Your task to perform on an android device: When is my next appointment? Image 0: 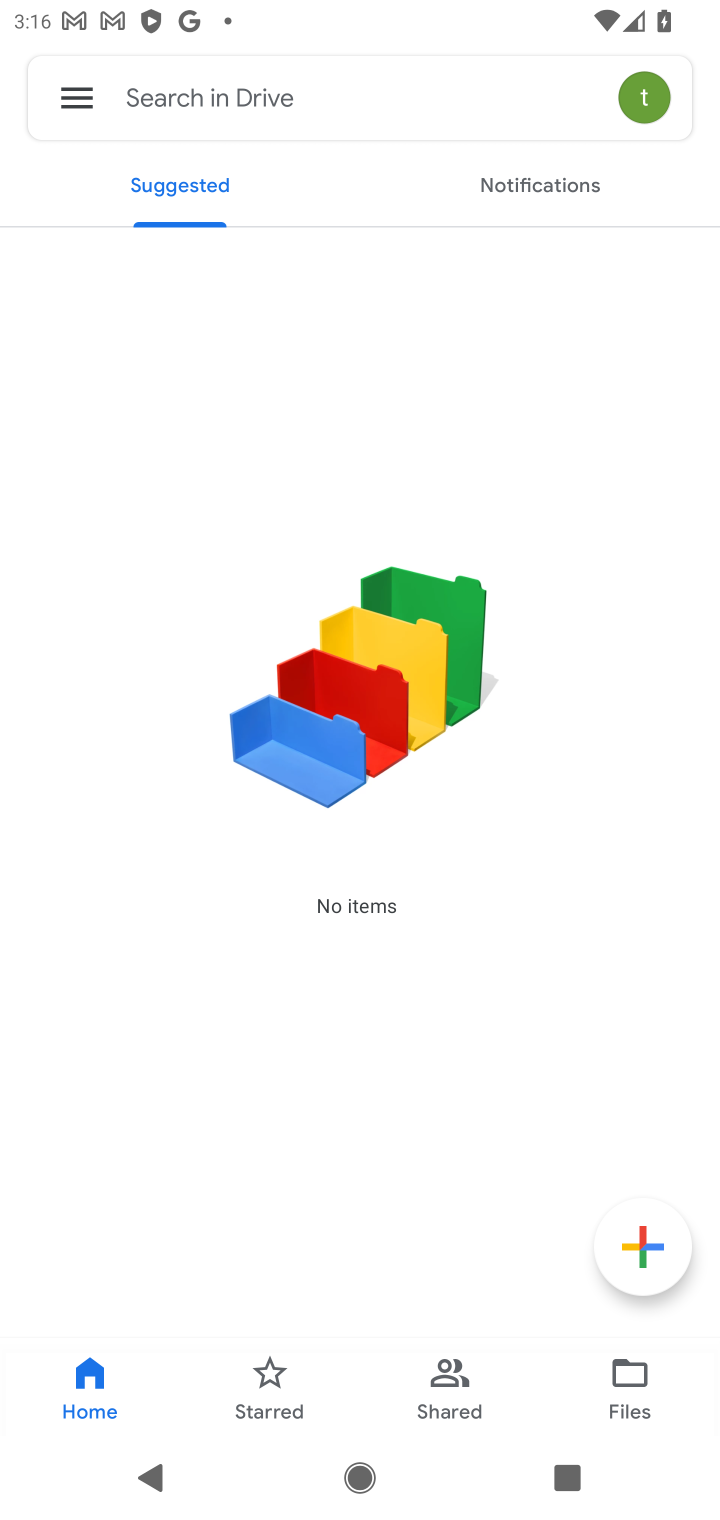
Step 0: press home button
Your task to perform on an android device: When is my next appointment? Image 1: 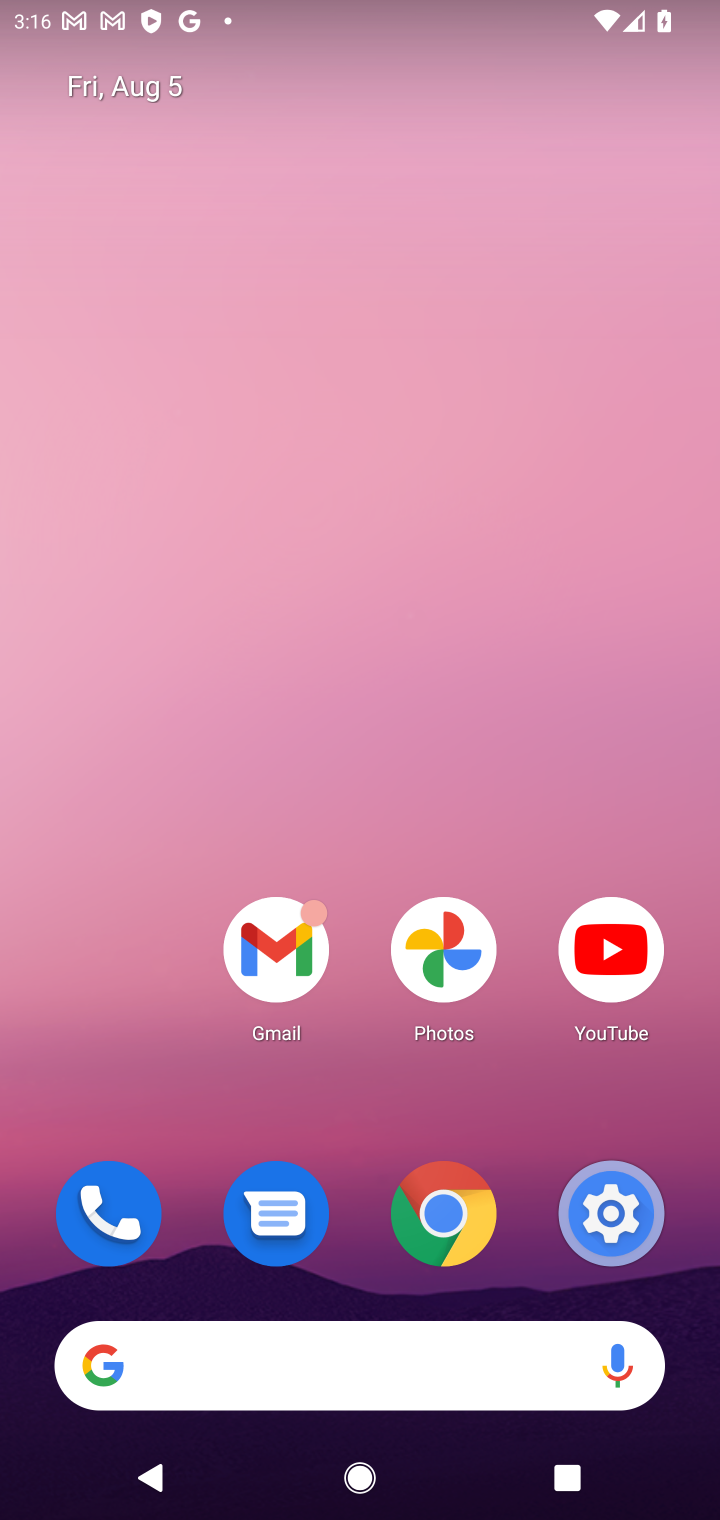
Step 1: click (623, 1172)
Your task to perform on an android device: When is my next appointment? Image 2: 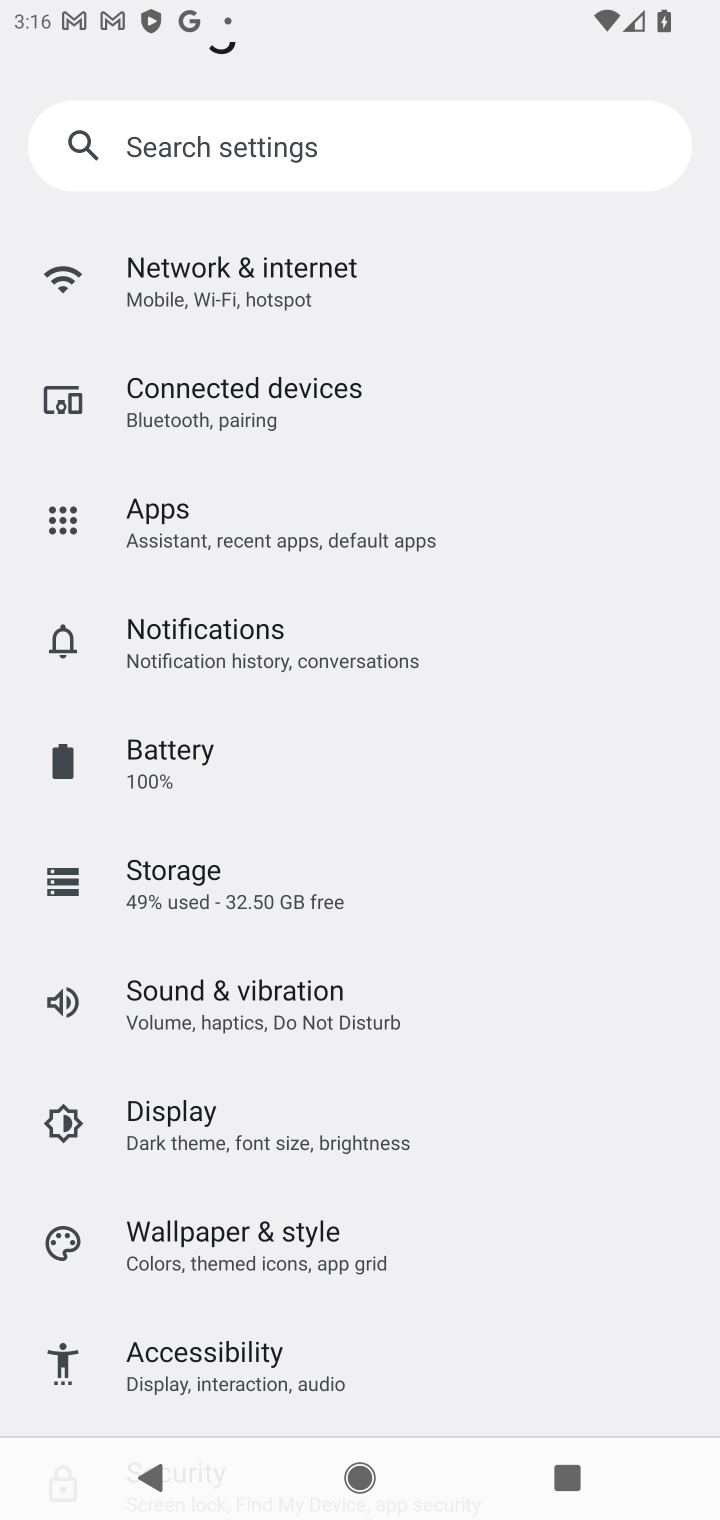
Step 2: press home button
Your task to perform on an android device: When is my next appointment? Image 3: 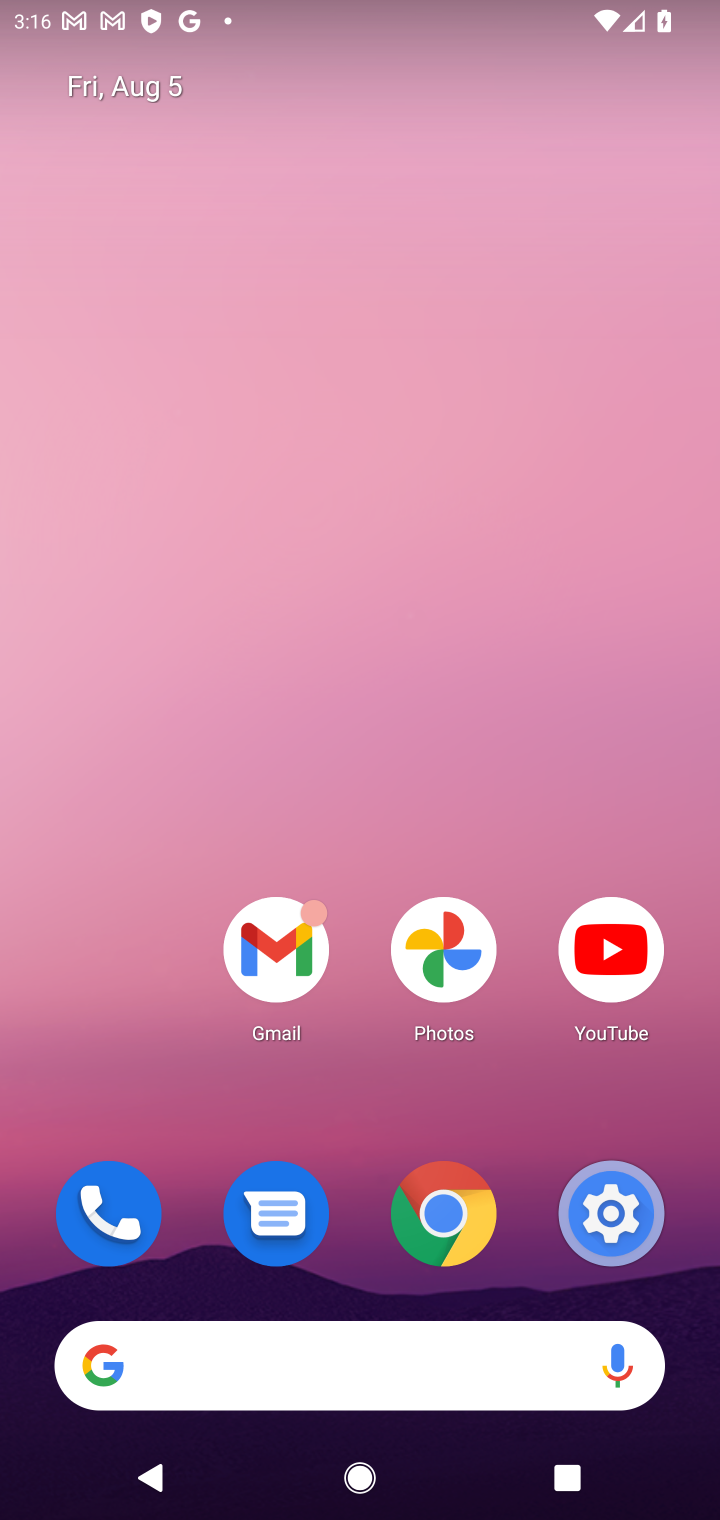
Step 3: drag from (530, 1122) to (357, 52)
Your task to perform on an android device: When is my next appointment? Image 4: 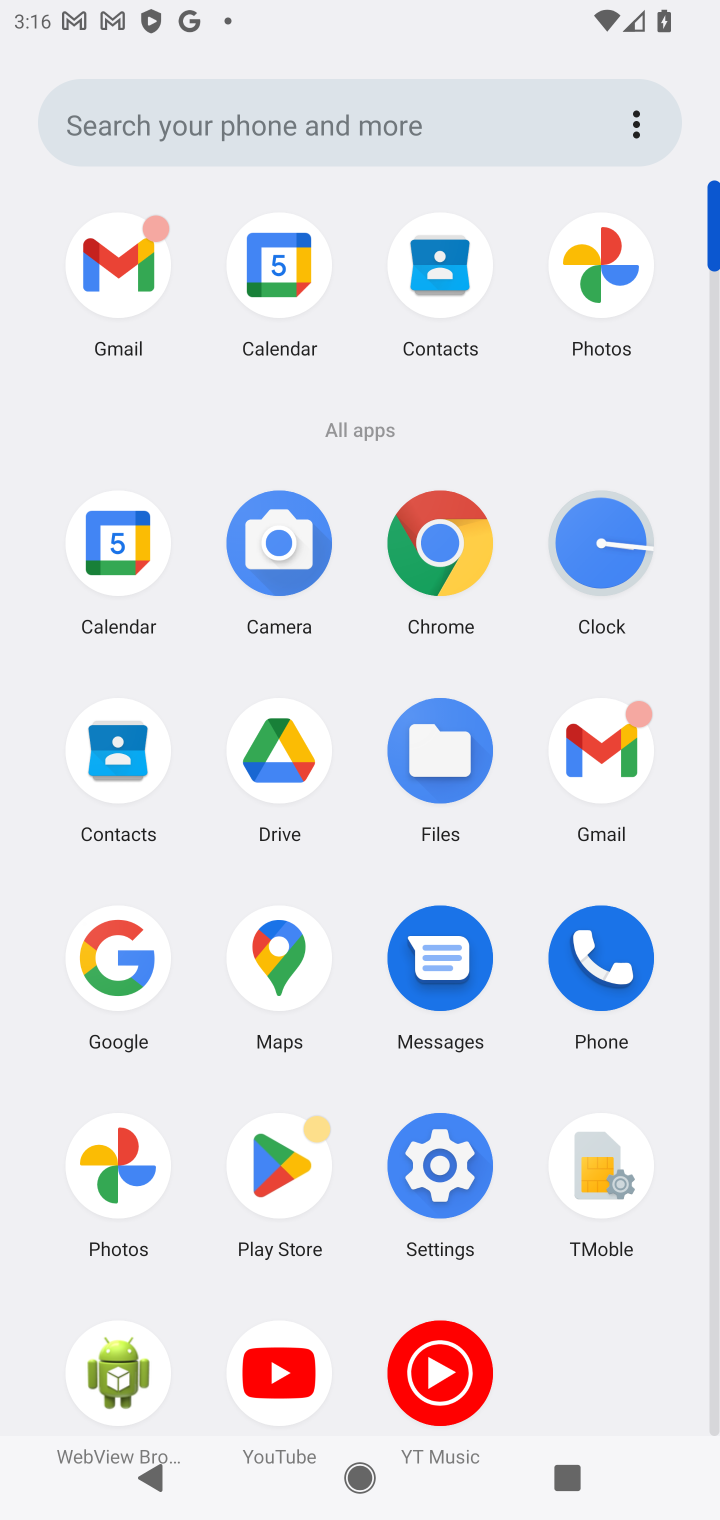
Step 4: click (287, 240)
Your task to perform on an android device: When is my next appointment? Image 5: 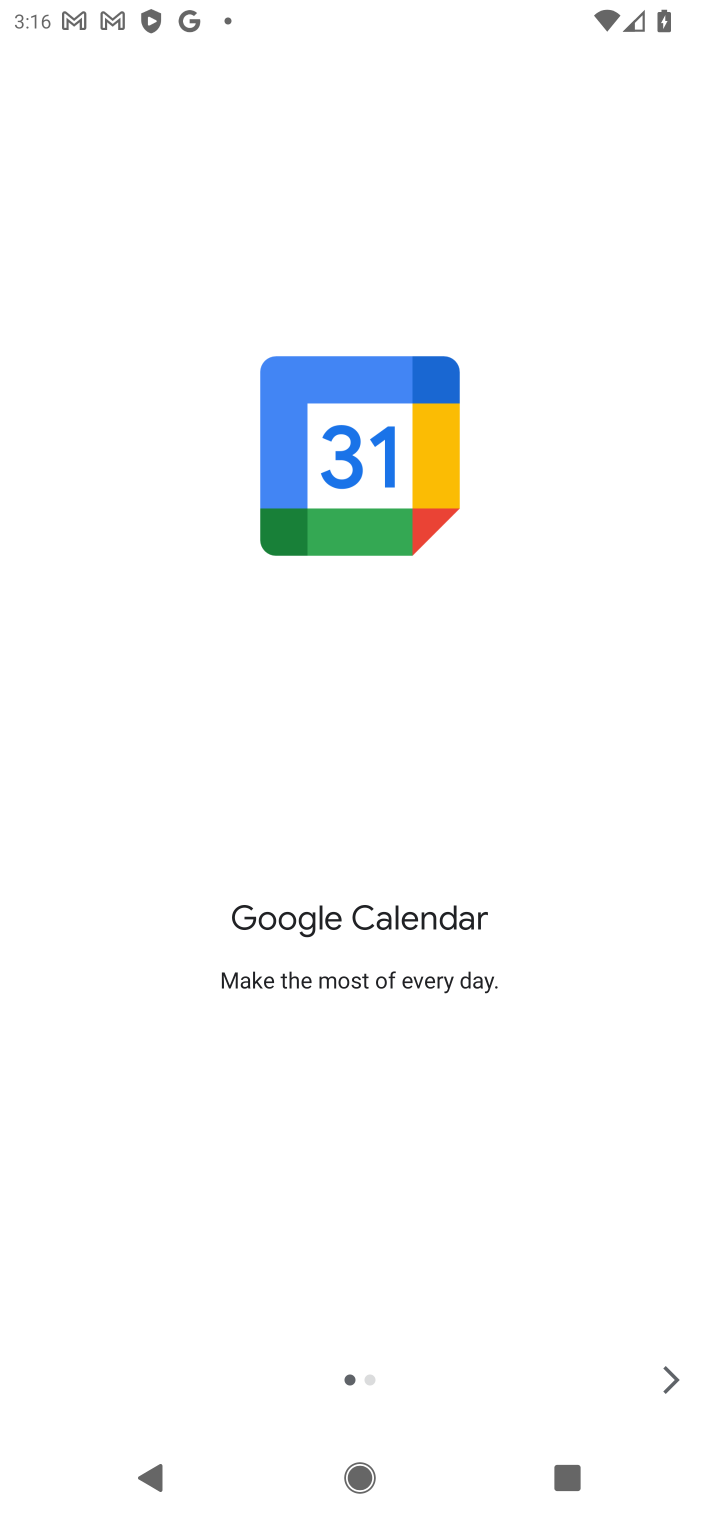
Step 5: task complete